Your task to perform on an android device: empty trash in google photos Image 0: 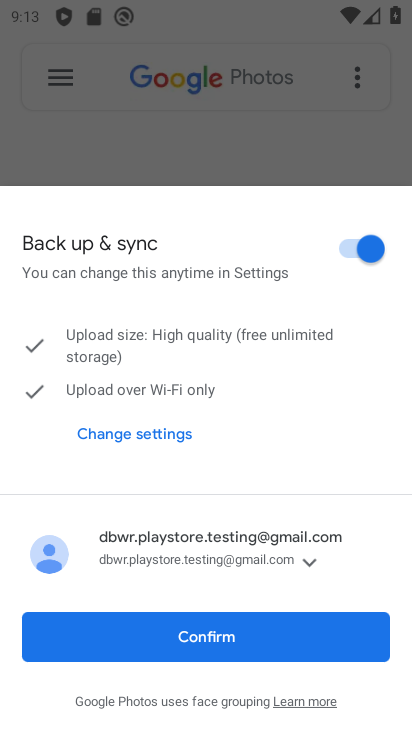
Step 0: click (345, 650)
Your task to perform on an android device: empty trash in google photos Image 1: 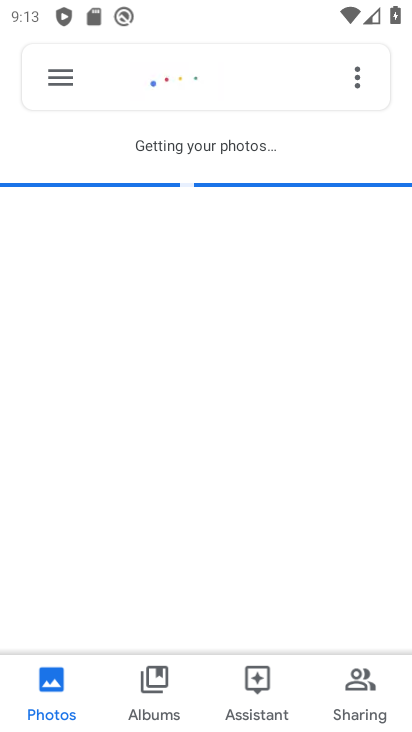
Step 1: click (53, 69)
Your task to perform on an android device: empty trash in google photos Image 2: 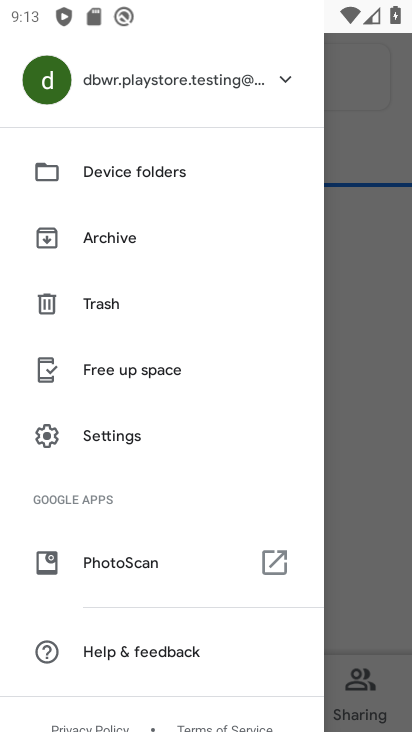
Step 2: click (127, 302)
Your task to perform on an android device: empty trash in google photos Image 3: 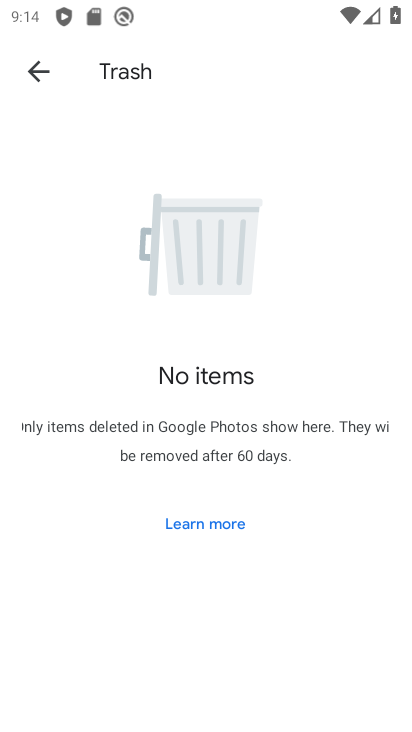
Step 3: task complete